Your task to perform on an android device: Go to network settings Image 0: 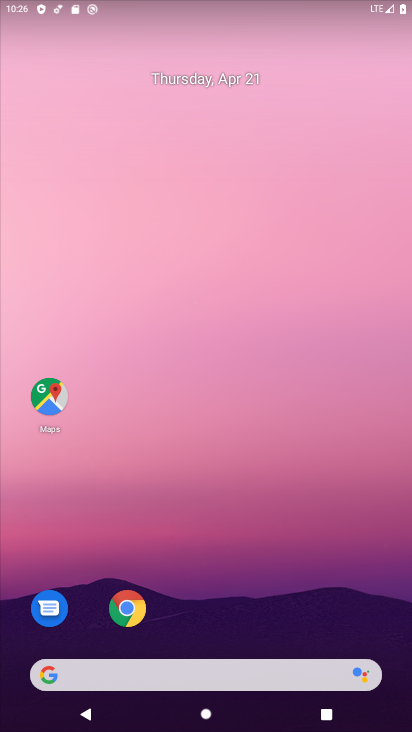
Step 0: drag from (206, 570) to (155, 129)
Your task to perform on an android device: Go to network settings Image 1: 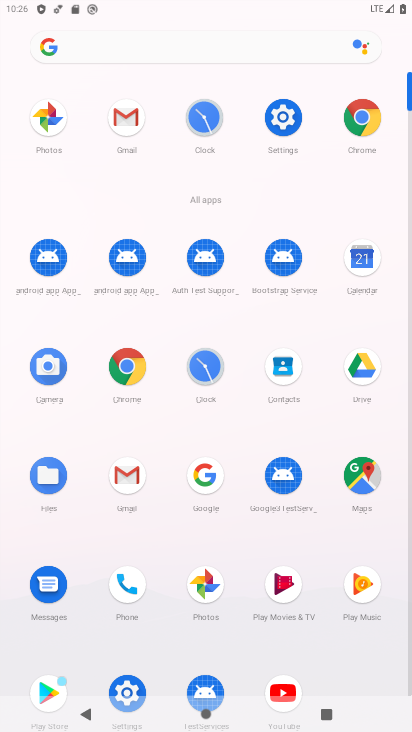
Step 1: click (277, 121)
Your task to perform on an android device: Go to network settings Image 2: 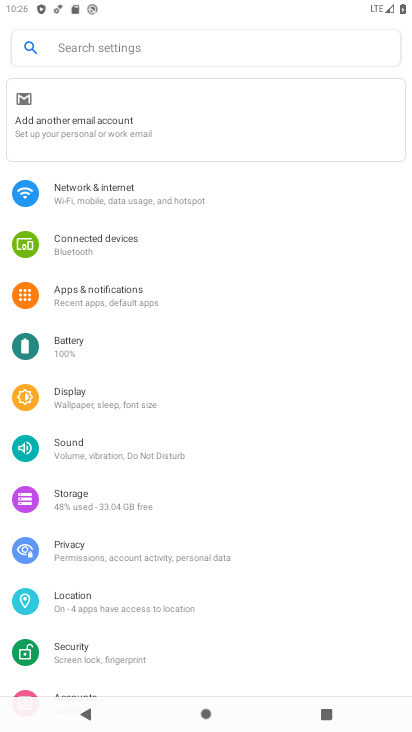
Step 2: click (76, 197)
Your task to perform on an android device: Go to network settings Image 3: 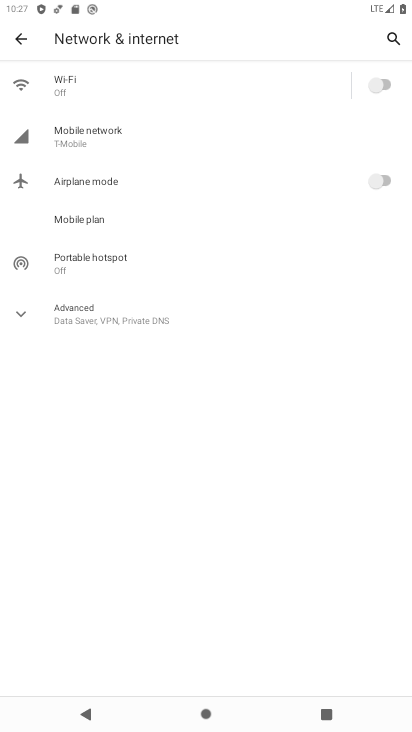
Step 3: task complete